Your task to perform on an android device: turn on notifications settings in the gmail app Image 0: 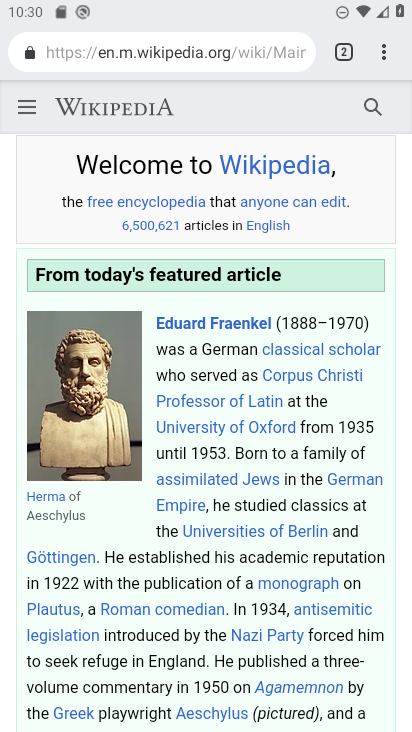
Step 0: press home button
Your task to perform on an android device: turn on notifications settings in the gmail app Image 1: 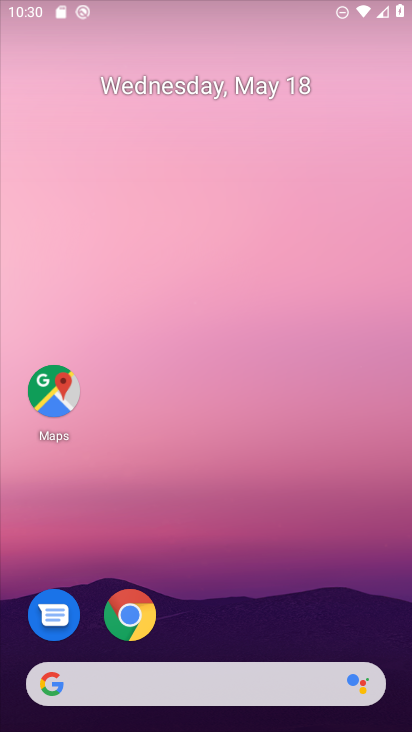
Step 1: drag from (229, 615) to (310, 53)
Your task to perform on an android device: turn on notifications settings in the gmail app Image 2: 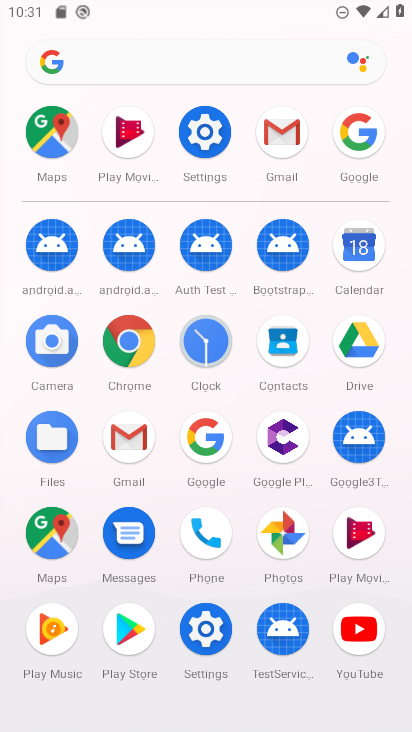
Step 2: click (282, 130)
Your task to perform on an android device: turn on notifications settings in the gmail app Image 3: 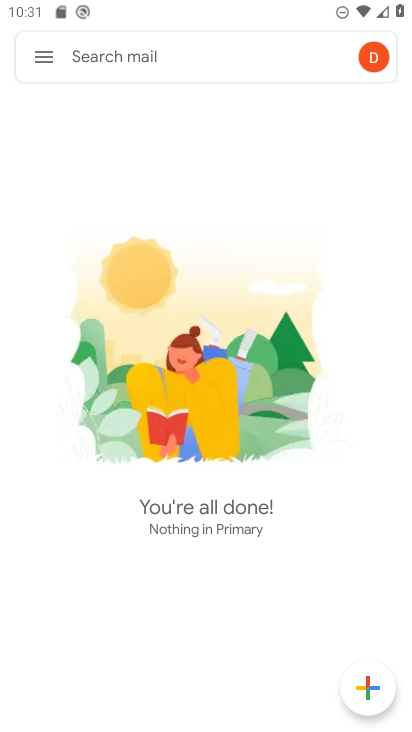
Step 3: click (44, 54)
Your task to perform on an android device: turn on notifications settings in the gmail app Image 4: 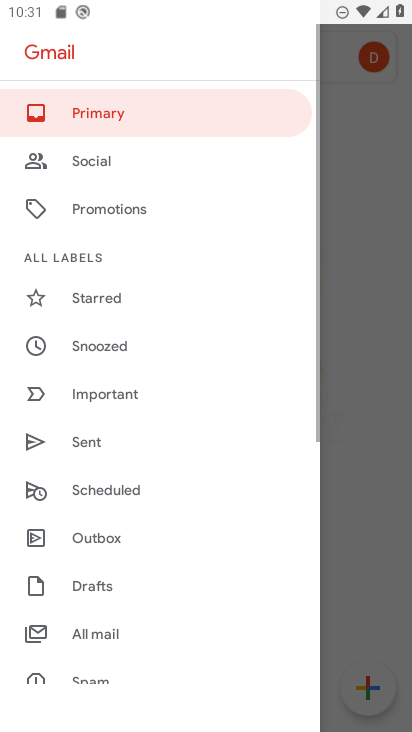
Step 4: drag from (128, 641) to (236, 51)
Your task to perform on an android device: turn on notifications settings in the gmail app Image 5: 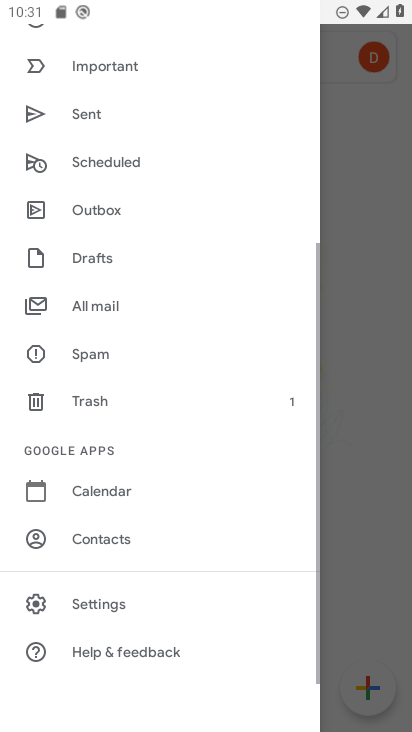
Step 5: click (104, 603)
Your task to perform on an android device: turn on notifications settings in the gmail app Image 6: 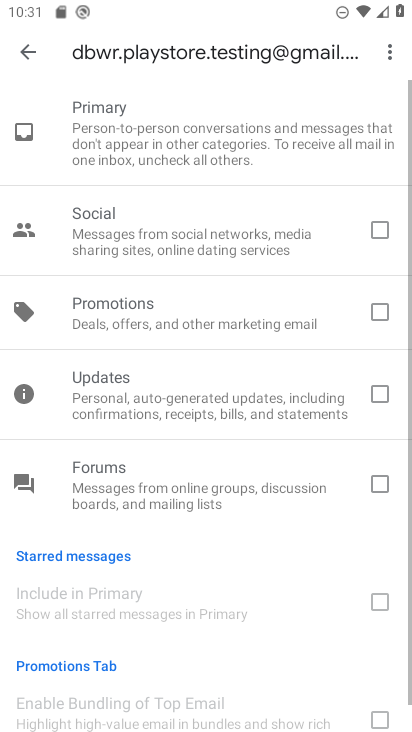
Step 6: drag from (155, 611) to (155, 728)
Your task to perform on an android device: turn on notifications settings in the gmail app Image 7: 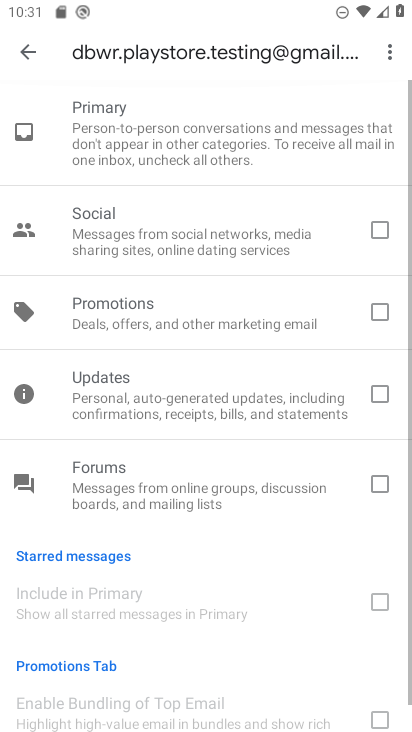
Step 7: drag from (130, 227) to (232, 102)
Your task to perform on an android device: turn on notifications settings in the gmail app Image 8: 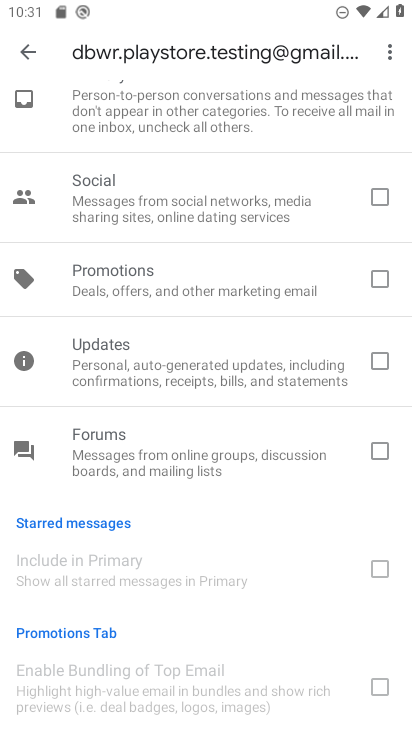
Step 8: press back button
Your task to perform on an android device: turn on notifications settings in the gmail app Image 9: 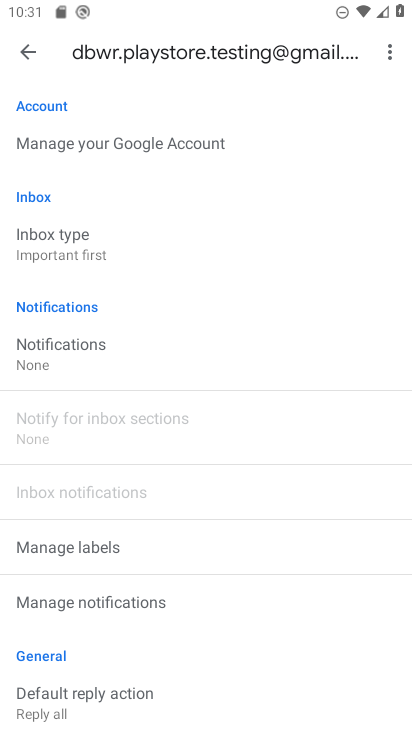
Step 9: click (109, 360)
Your task to perform on an android device: turn on notifications settings in the gmail app Image 10: 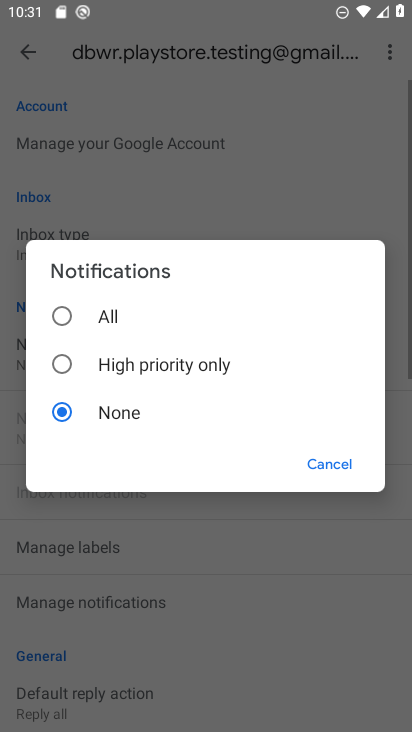
Step 10: click (79, 307)
Your task to perform on an android device: turn on notifications settings in the gmail app Image 11: 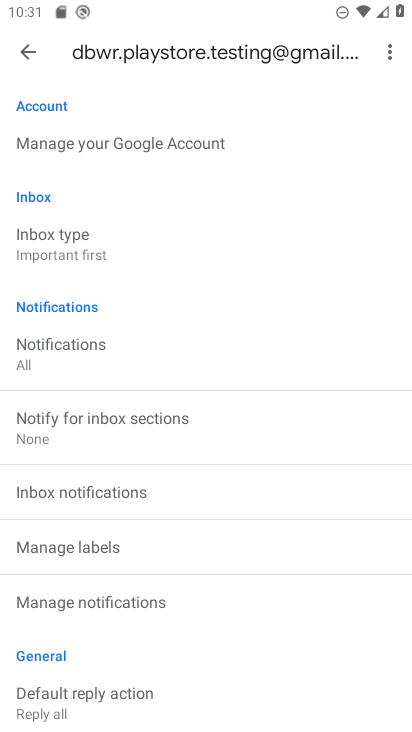
Step 11: task complete